Your task to perform on an android device: When is my next appointment? Image 0: 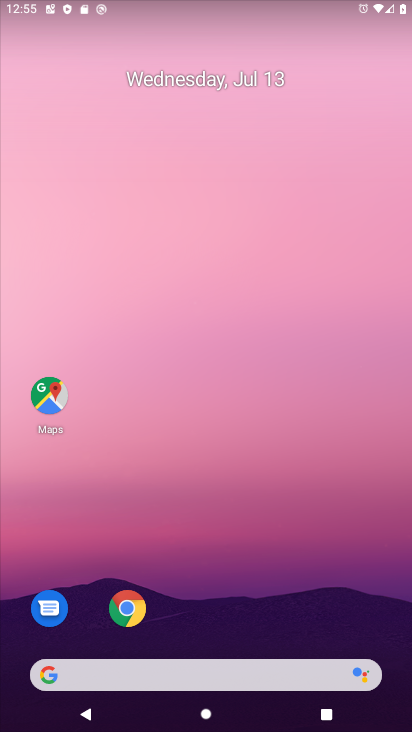
Step 0: drag from (204, 638) to (249, 150)
Your task to perform on an android device: When is my next appointment? Image 1: 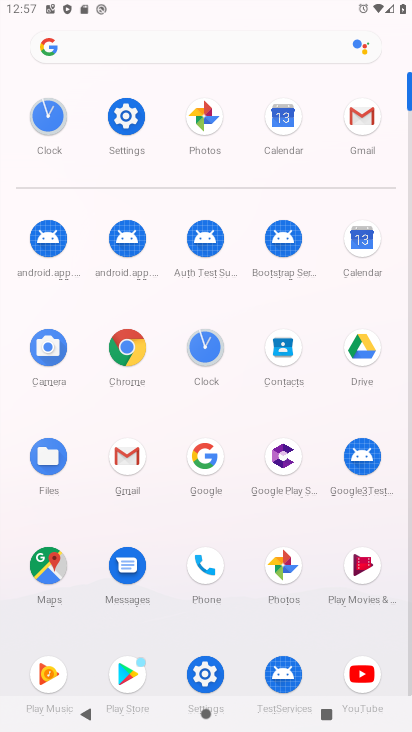
Step 1: click (357, 243)
Your task to perform on an android device: When is my next appointment? Image 2: 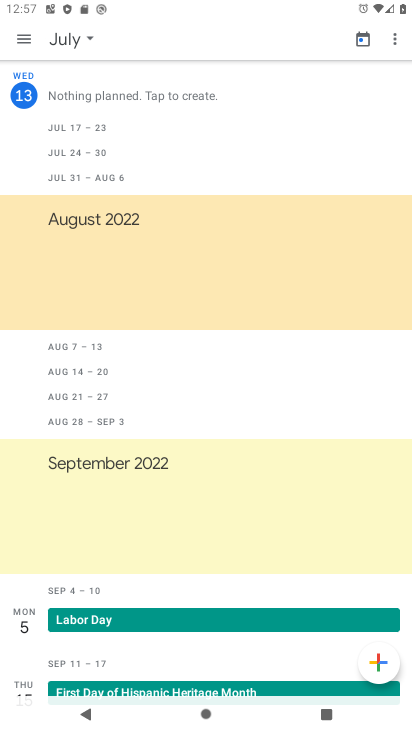
Step 2: task complete